Your task to perform on an android device: Search for vegetarian restaurants on Maps Image 0: 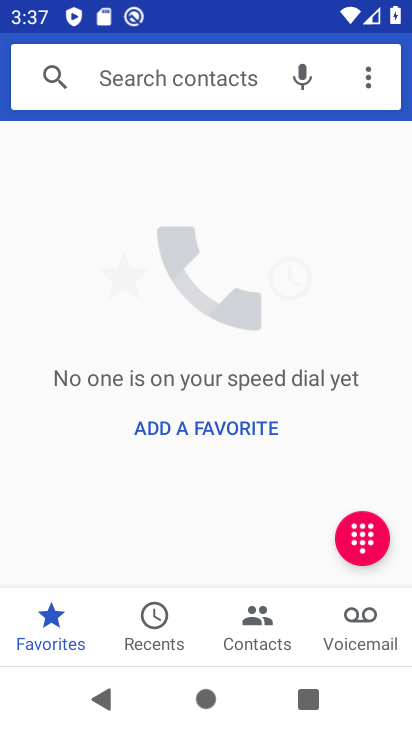
Step 0: press home button
Your task to perform on an android device: Search for vegetarian restaurants on Maps Image 1: 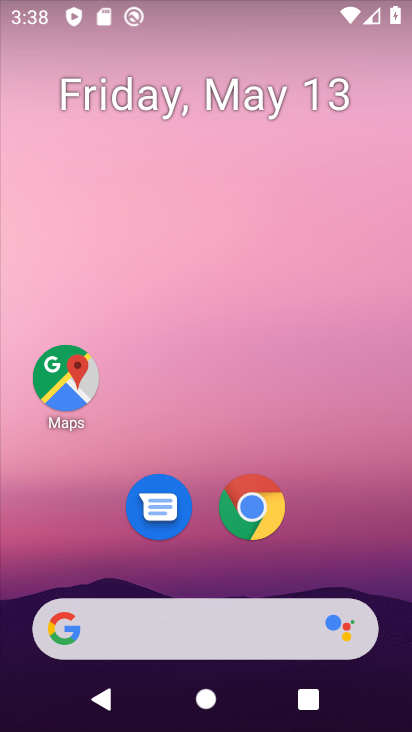
Step 1: click (76, 364)
Your task to perform on an android device: Search for vegetarian restaurants on Maps Image 2: 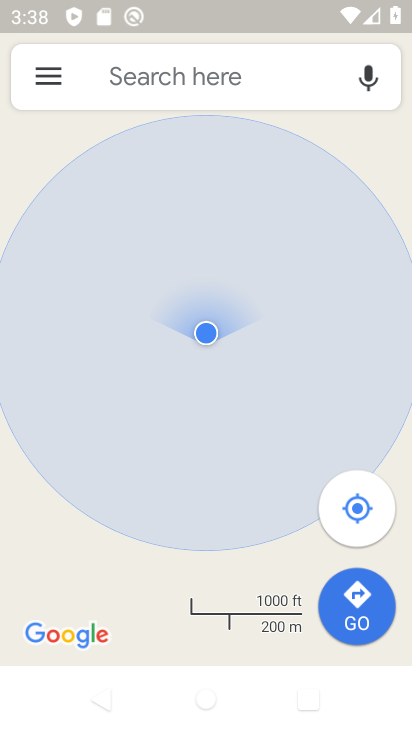
Step 2: click (231, 82)
Your task to perform on an android device: Search for vegetarian restaurants on Maps Image 3: 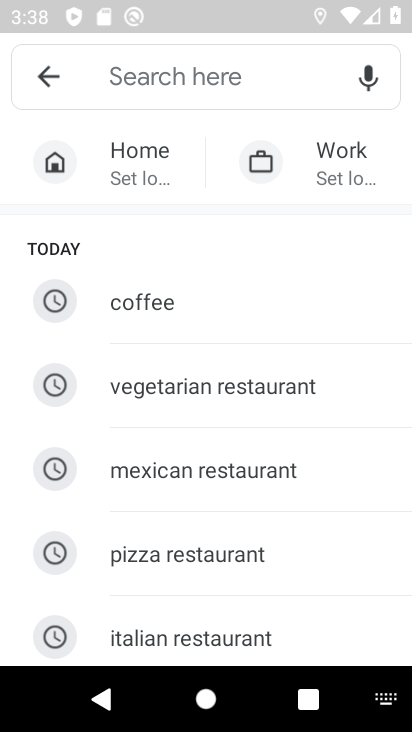
Step 3: type "vegeta"
Your task to perform on an android device: Search for vegetarian restaurants on Maps Image 4: 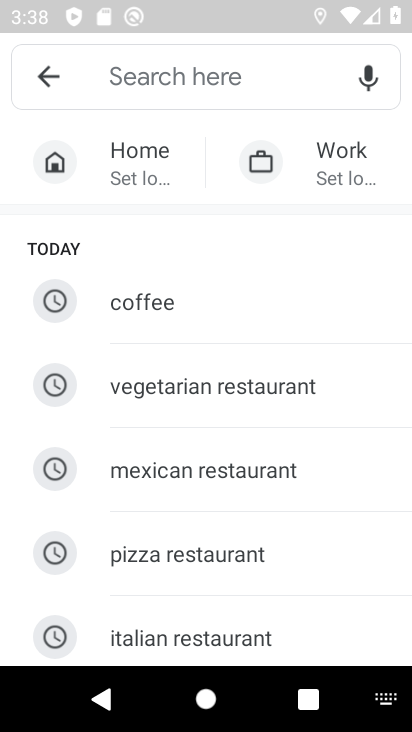
Step 4: click (337, 368)
Your task to perform on an android device: Search for vegetarian restaurants on Maps Image 5: 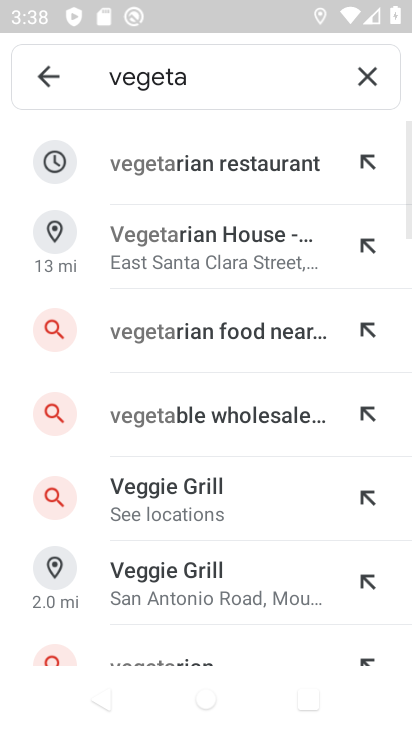
Step 5: click (257, 169)
Your task to perform on an android device: Search for vegetarian restaurants on Maps Image 6: 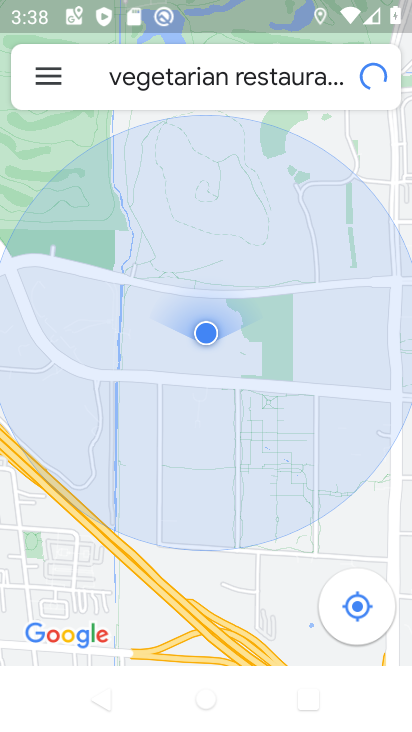
Step 6: task complete